Your task to perform on an android device: Open Google Chrome and open the bookmarks view Image 0: 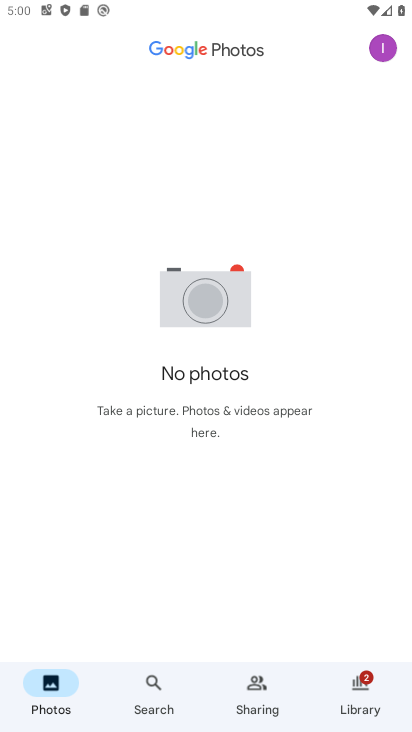
Step 0: press home button
Your task to perform on an android device: Open Google Chrome and open the bookmarks view Image 1: 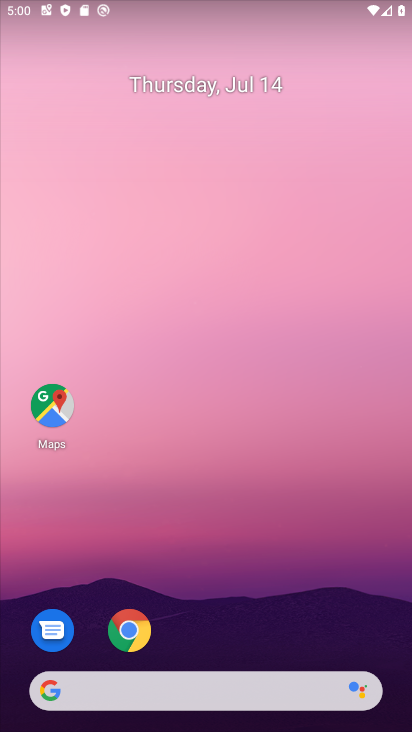
Step 1: drag from (314, 702) to (288, 120)
Your task to perform on an android device: Open Google Chrome and open the bookmarks view Image 2: 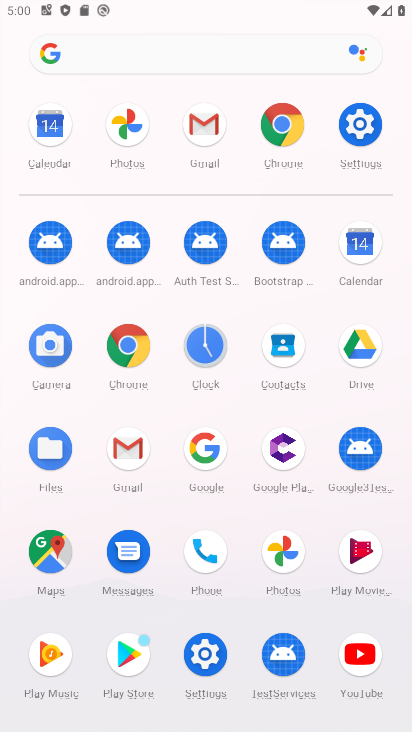
Step 2: click (140, 351)
Your task to perform on an android device: Open Google Chrome and open the bookmarks view Image 3: 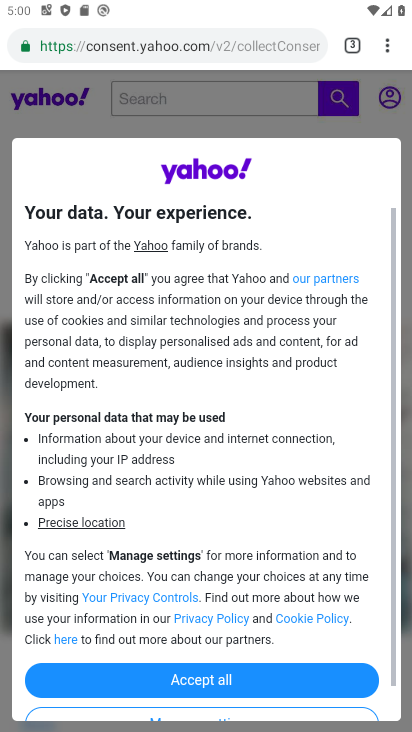
Step 3: task complete